Your task to perform on an android device: toggle translation in the chrome app Image 0: 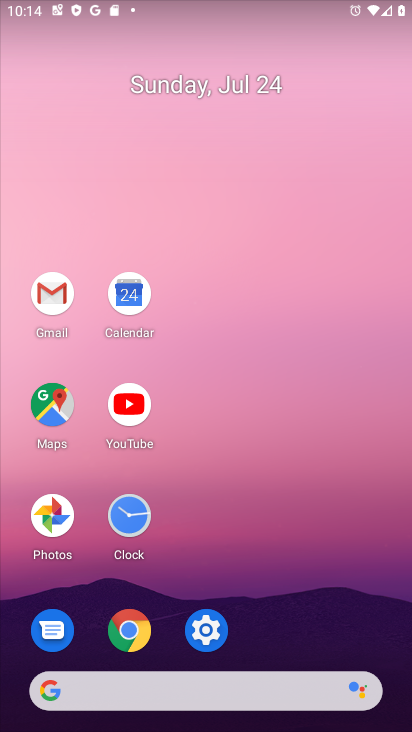
Step 0: click (128, 627)
Your task to perform on an android device: toggle translation in the chrome app Image 1: 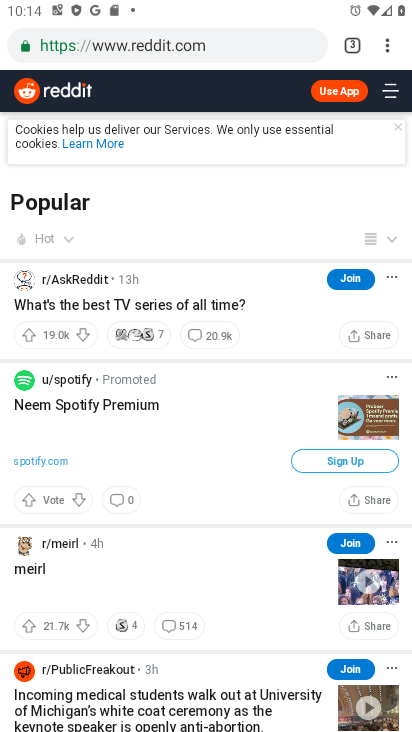
Step 1: click (386, 47)
Your task to perform on an android device: toggle translation in the chrome app Image 2: 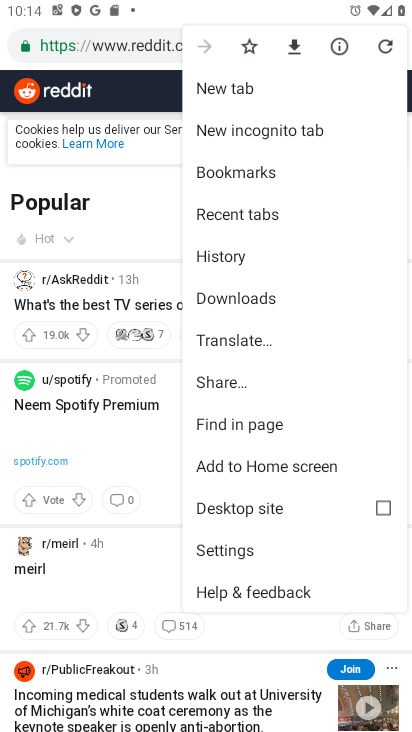
Step 2: click (223, 555)
Your task to perform on an android device: toggle translation in the chrome app Image 3: 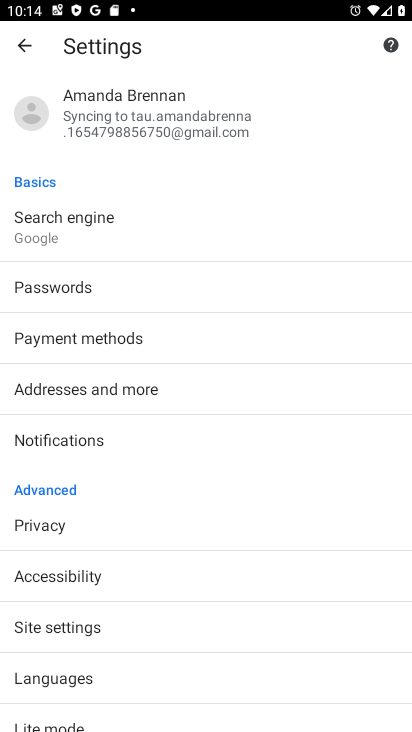
Step 3: click (55, 674)
Your task to perform on an android device: toggle translation in the chrome app Image 4: 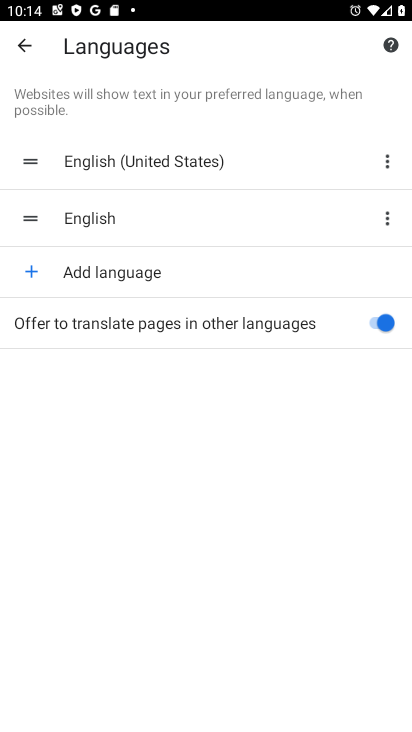
Step 4: click (379, 321)
Your task to perform on an android device: toggle translation in the chrome app Image 5: 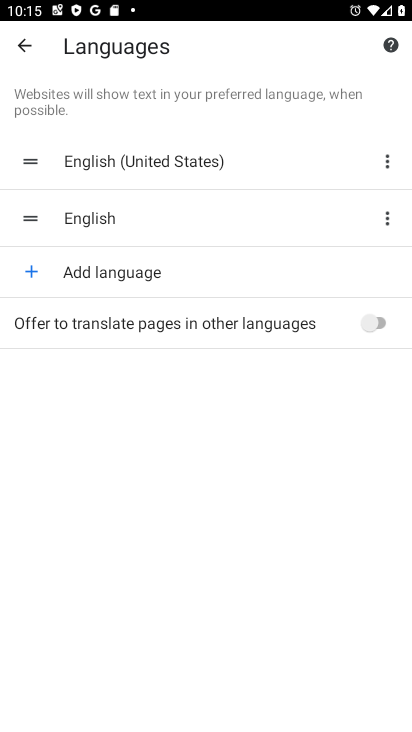
Step 5: task complete